Your task to perform on an android device: Open Chrome and go to settings Image 0: 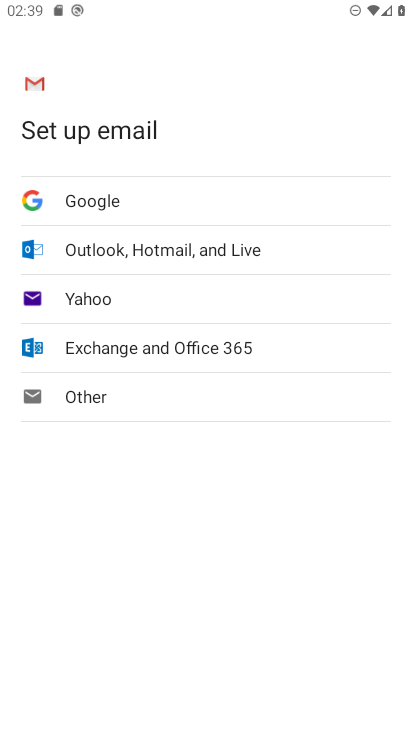
Step 0: press home button
Your task to perform on an android device: Open Chrome and go to settings Image 1: 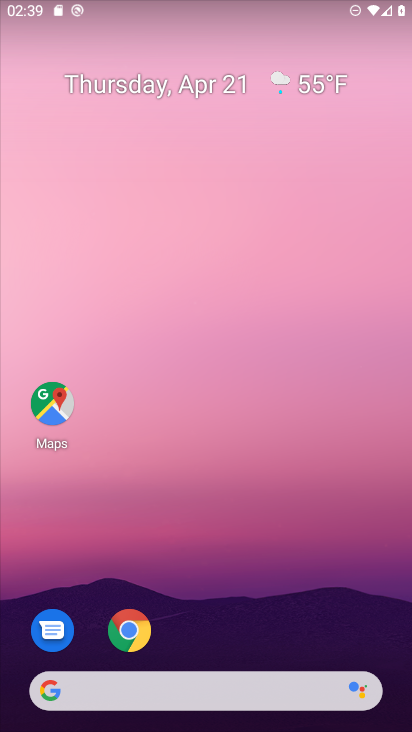
Step 1: click (127, 621)
Your task to perform on an android device: Open Chrome and go to settings Image 2: 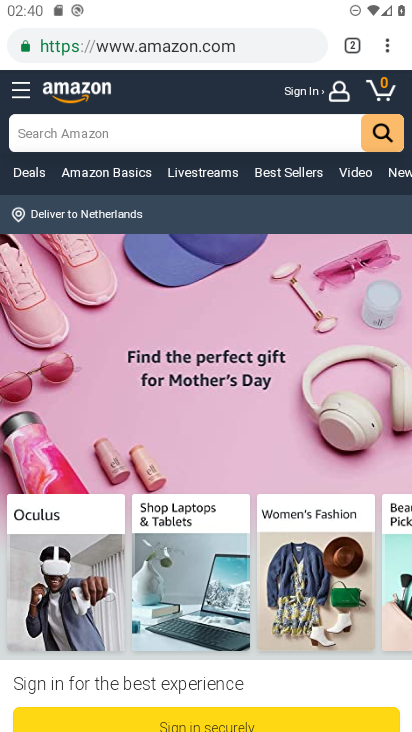
Step 2: click (389, 49)
Your task to perform on an android device: Open Chrome and go to settings Image 3: 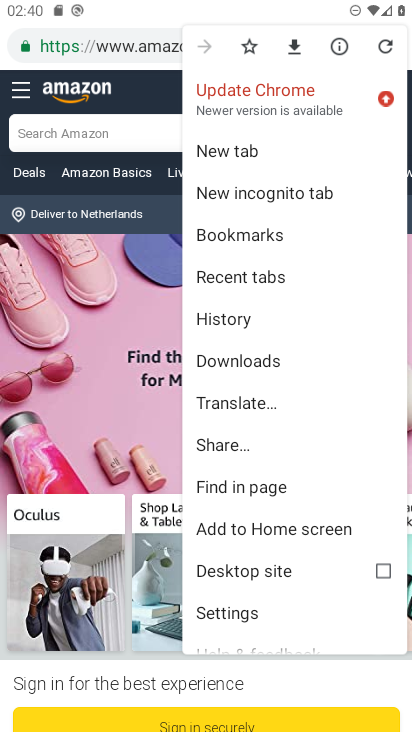
Step 3: click (253, 610)
Your task to perform on an android device: Open Chrome and go to settings Image 4: 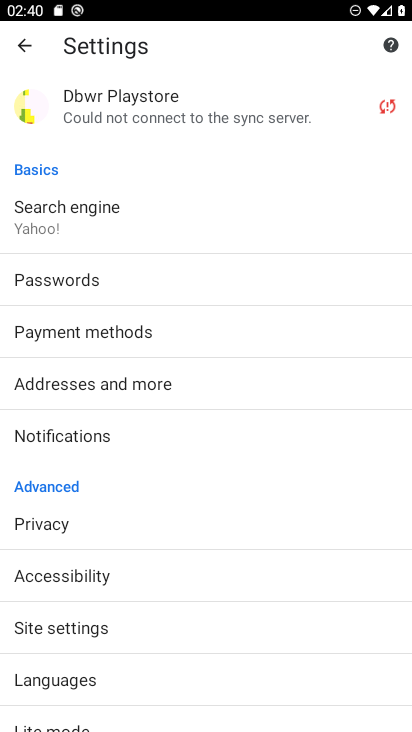
Step 4: task complete